Your task to perform on an android device: turn on airplane mode Image 0: 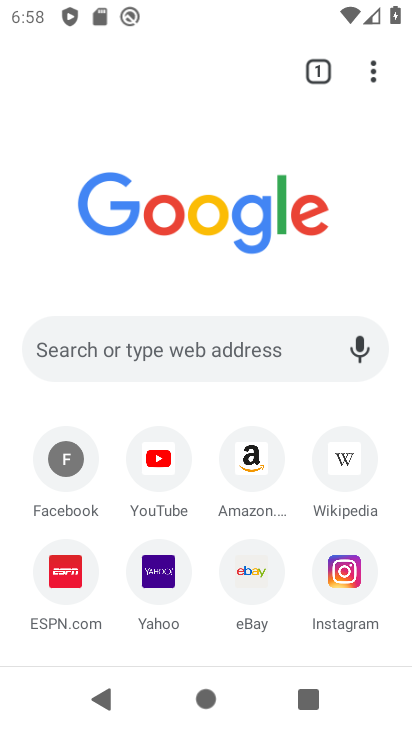
Step 0: drag from (380, 8) to (366, 525)
Your task to perform on an android device: turn on airplane mode Image 1: 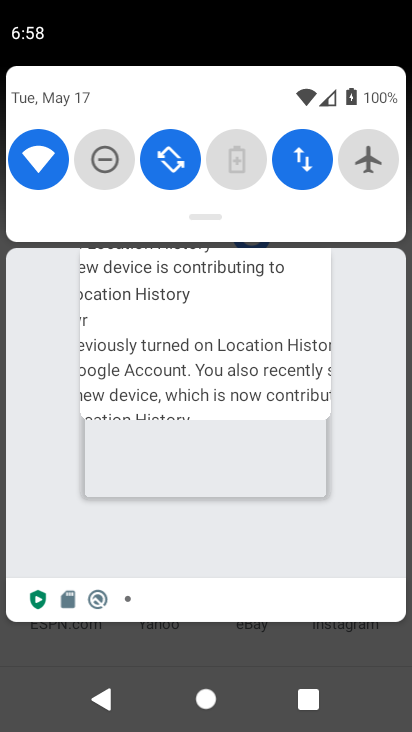
Step 1: click (372, 171)
Your task to perform on an android device: turn on airplane mode Image 2: 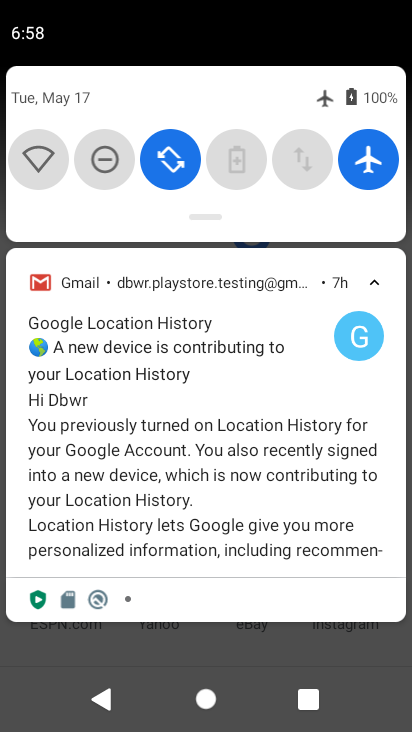
Step 2: task complete